Your task to perform on an android device: Show me popular games on the Play Store Image 0: 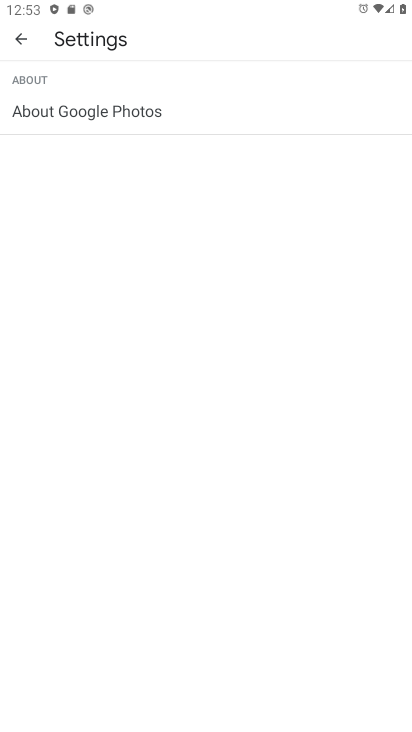
Step 0: press home button
Your task to perform on an android device: Show me popular games on the Play Store Image 1: 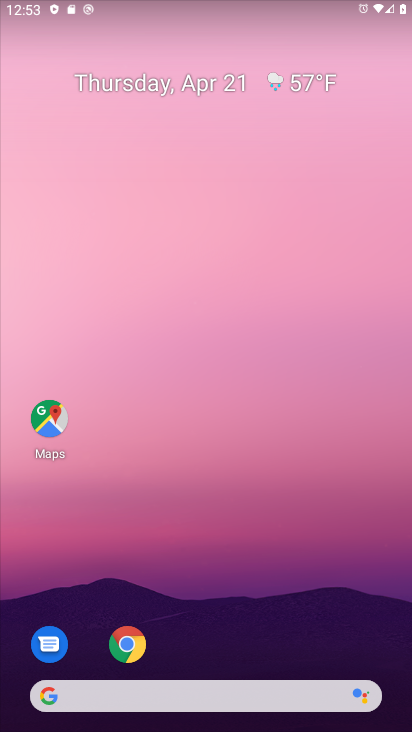
Step 1: drag from (207, 668) to (131, 13)
Your task to perform on an android device: Show me popular games on the Play Store Image 2: 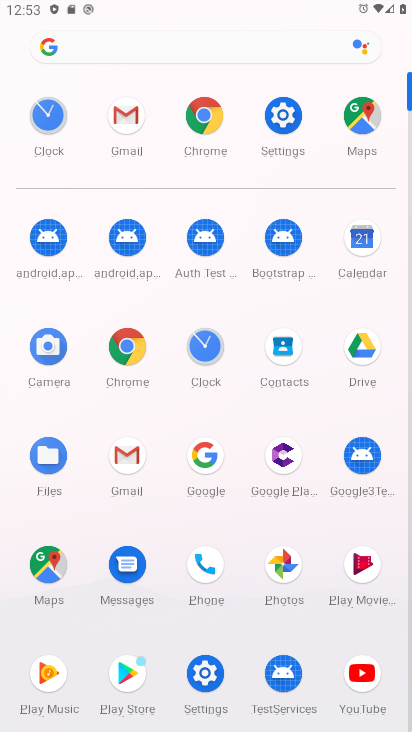
Step 2: click (123, 676)
Your task to perform on an android device: Show me popular games on the Play Store Image 3: 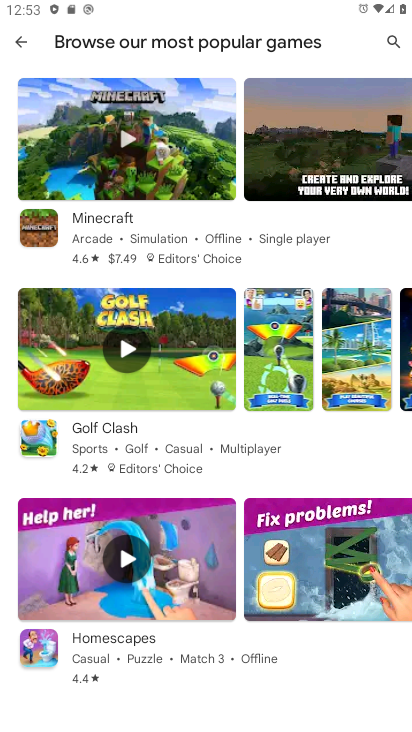
Step 3: task complete